Your task to perform on an android device: Open settings Image 0: 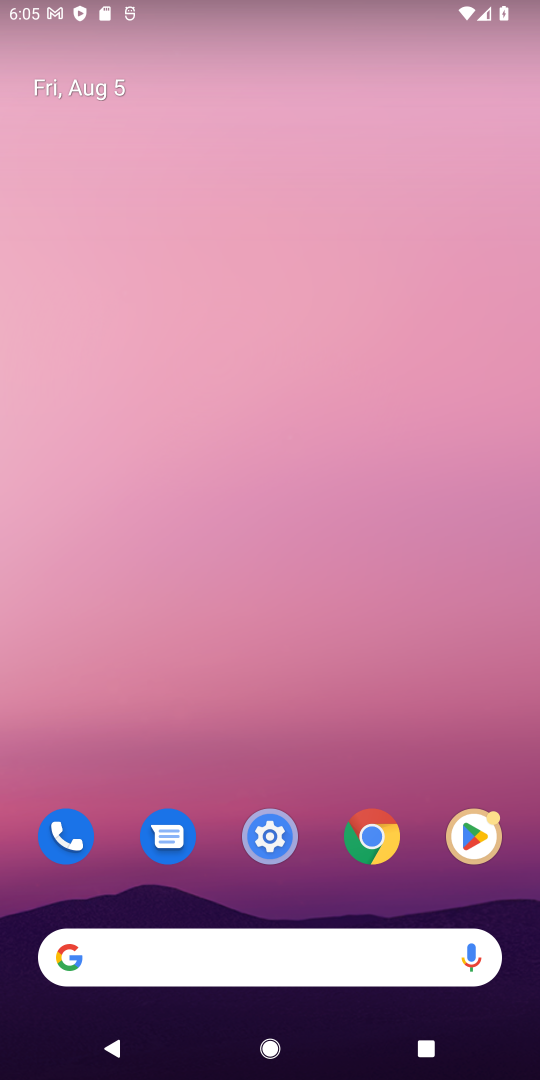
Step 0: drag from (312, 850) to (239, 182)
Your task to perform on an android device: Open settings Image 1: 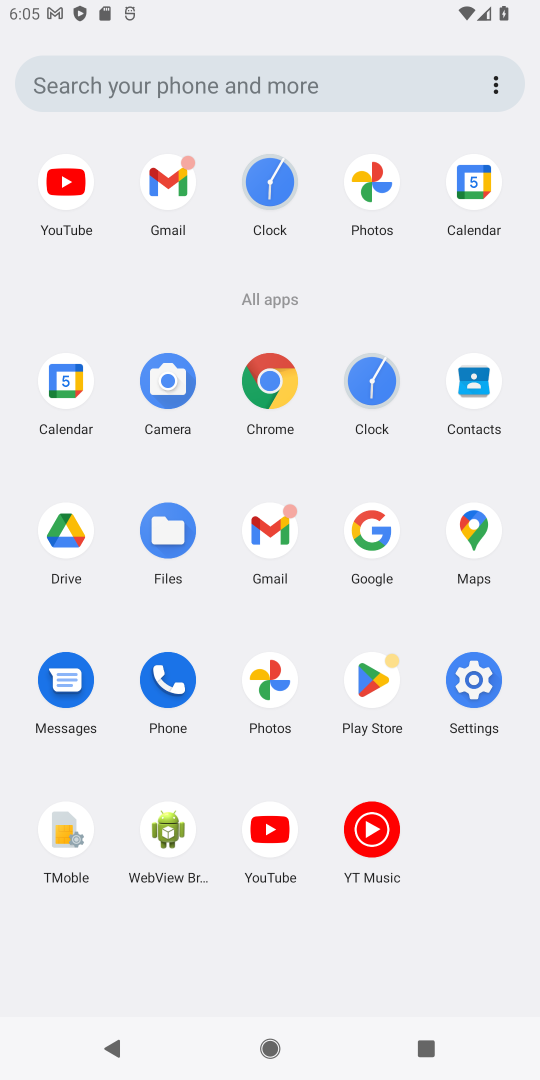
Step 1: drag from (238, 686) to (298, 59)
Your task to perform on an android device: Open settings Image 2: 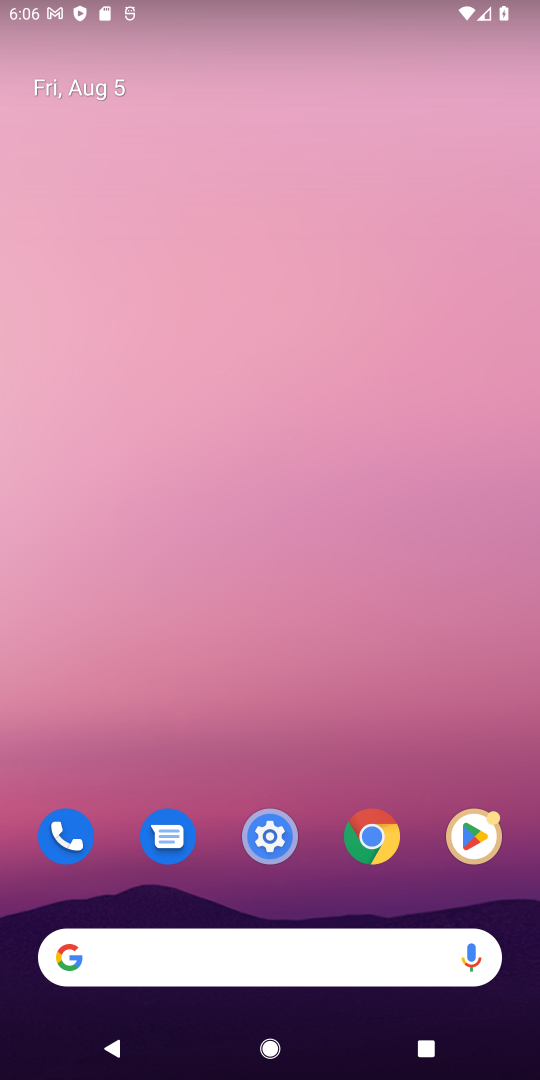
Step 2: drag from (241, 300) to (228, 351)
Your task to perform on an android device: Open settings Image 3: 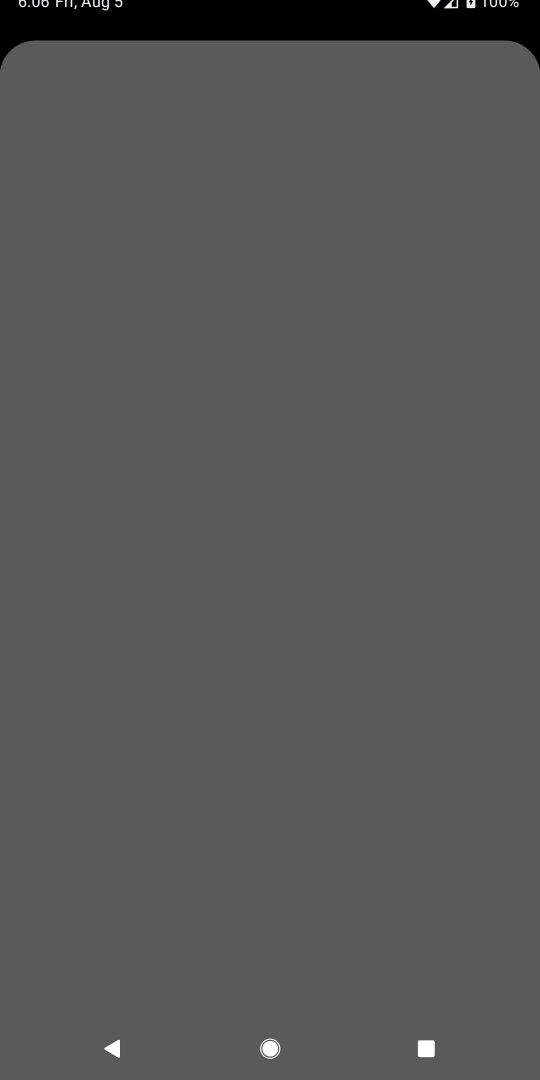
Step 3: drag from (250, 905) to (262, 313)
Your task to perform on an android device: Open settings Image 4: 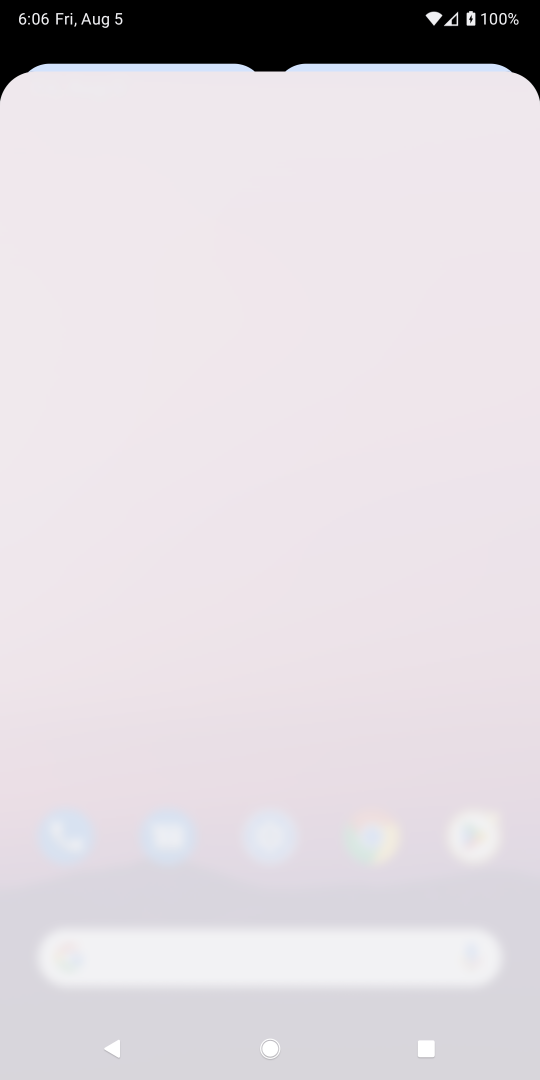
Step 4: drag from (309, 703) to (234, 151)
Your task to perform on an android device: Open settings Image 5: 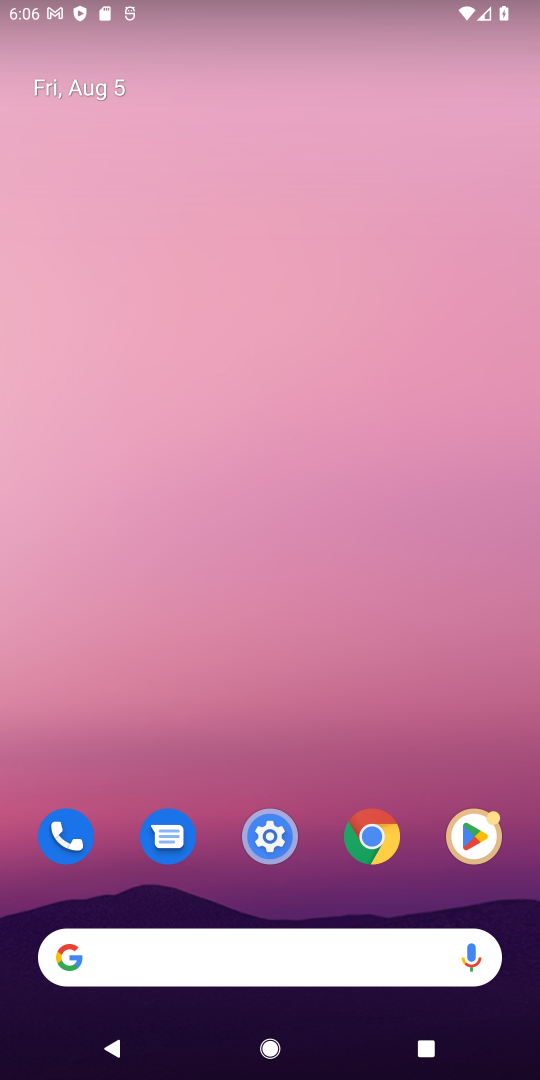
Step 5: drag from (305, 835) to (225, 100)
Your task to perform on an android device: Open settings Image 6: 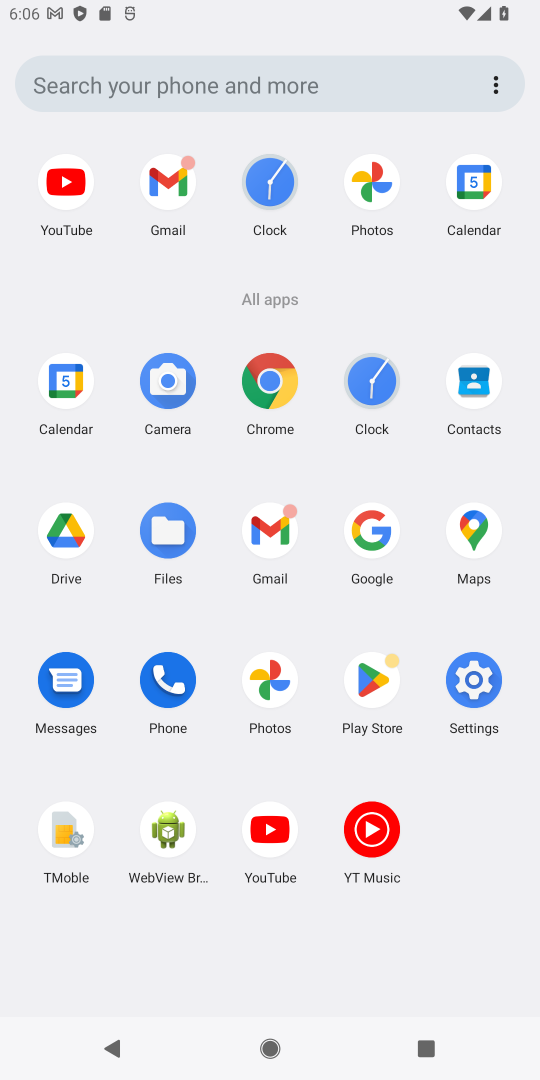
Step 6: click (483, 669)
Your task to perform on an android device: Open settings Image 7: 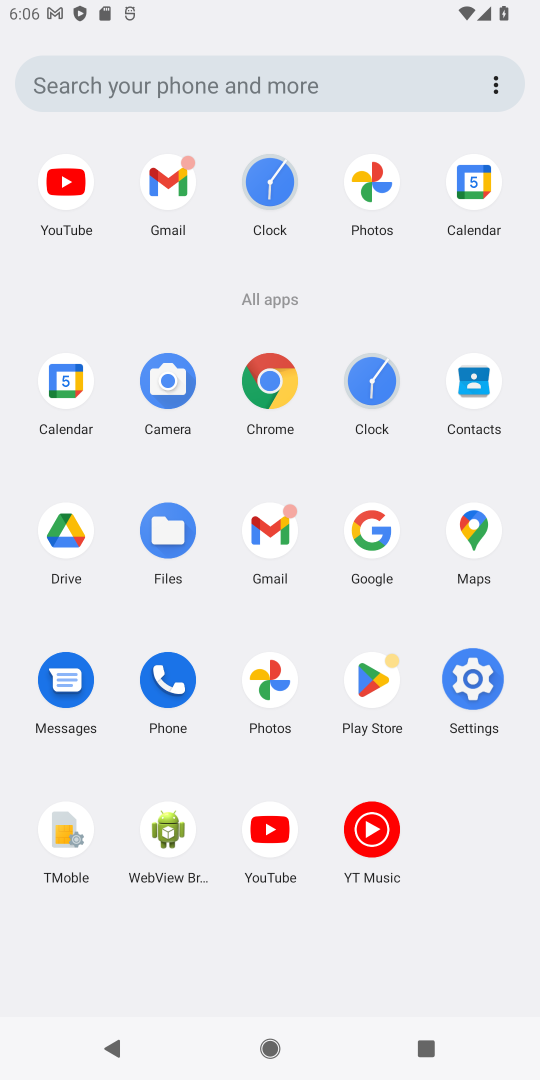
Step 7: click (481, 669)
Your task to perform on an android device: Open settings Image 8: 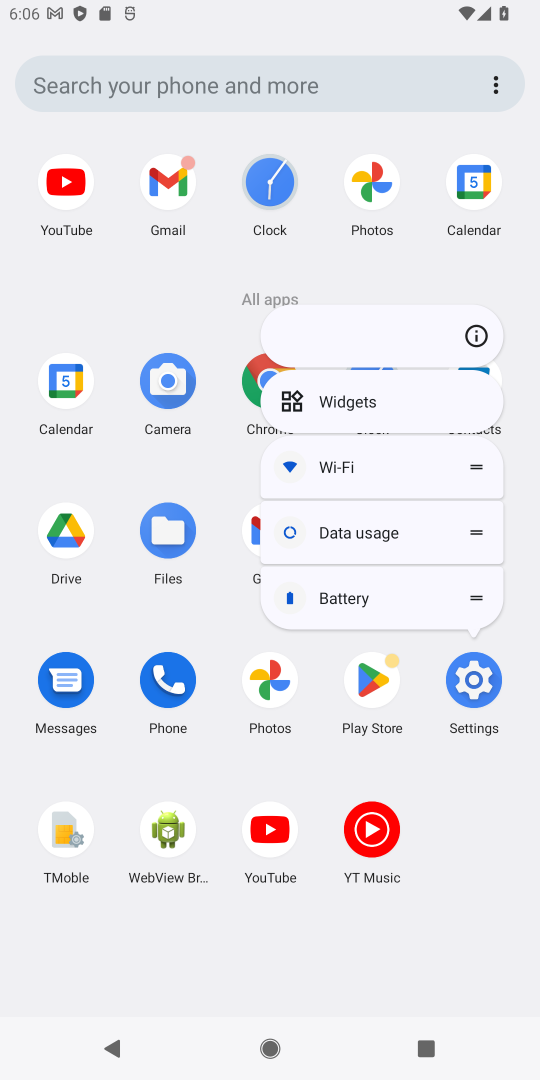
Step 8: click (474, 666)
Your task to perform on an android device: Open settings Image 9: 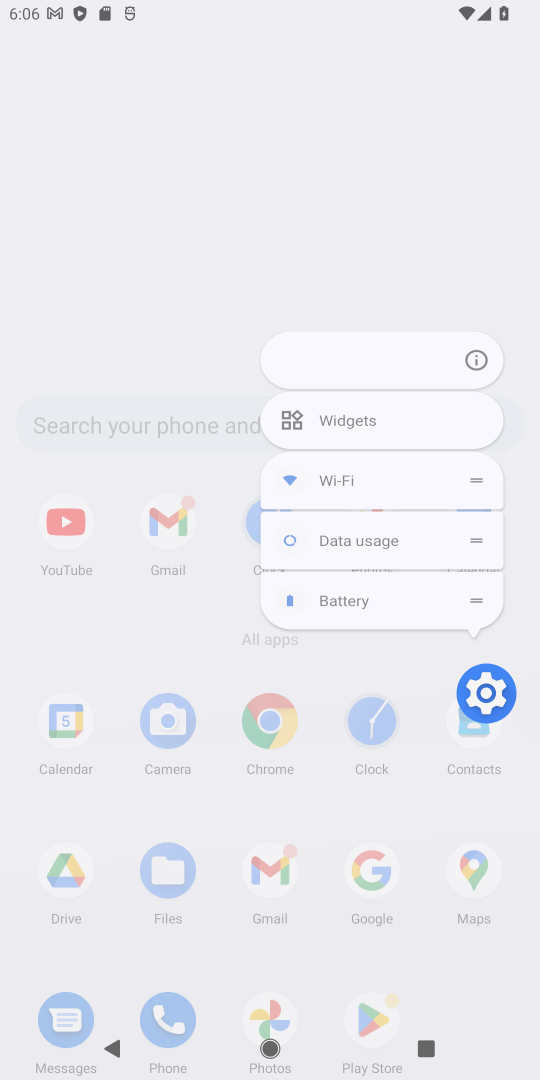
Step 9: click (468, 678)
Your task to perform on an android device: Open settings Image 10: 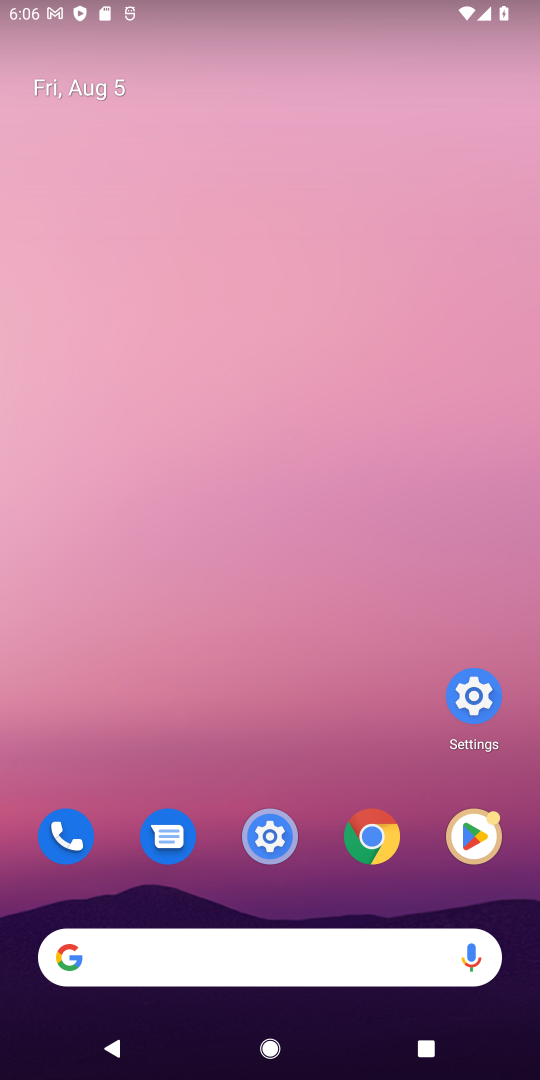
Step 10: drag from (302, 778) to (205, 362)
Your task to perform on an android device: Open settings Image 11: 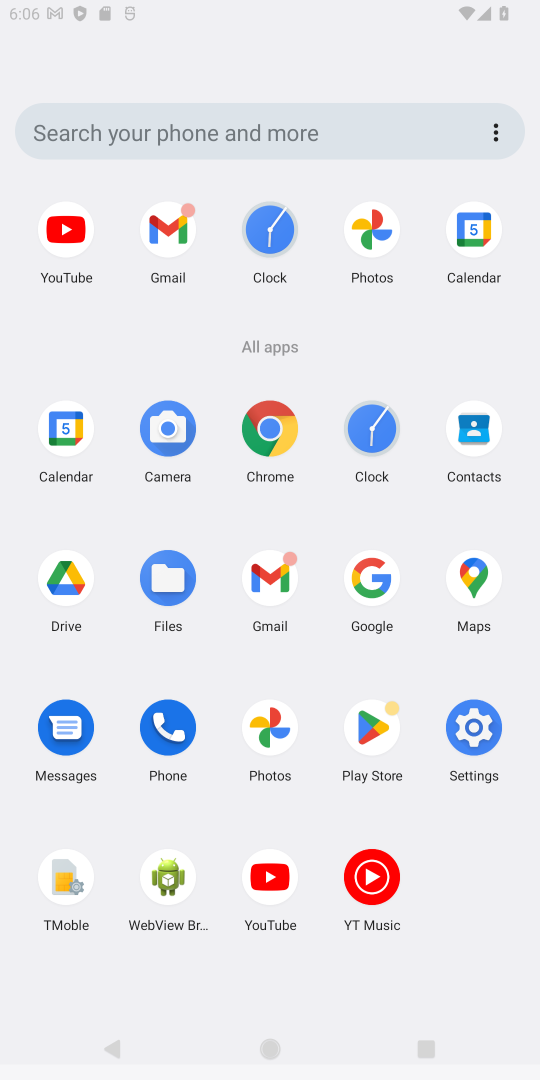
Step 11: drag from (321, 916) to (231, 247)
Your task to perform on an android device: Open settings Image 12: 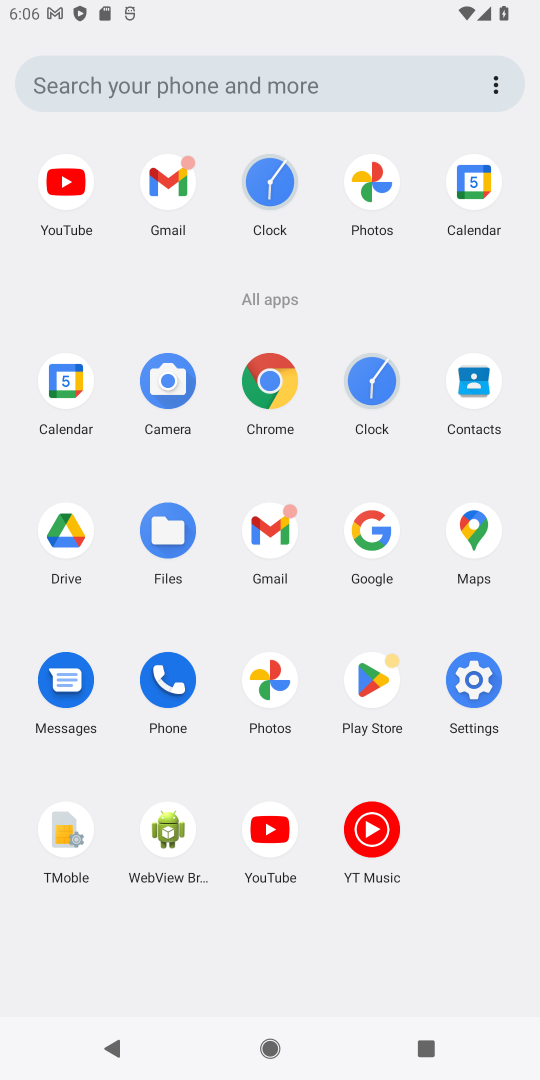
Step 12: click (370, 348)
Your task to perform on an android device: Open settings Image 13: 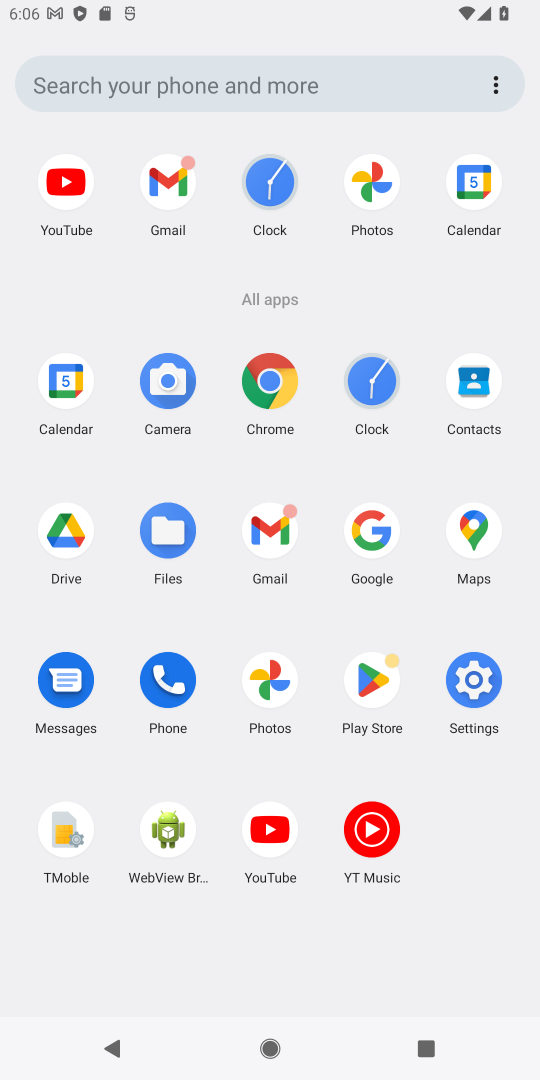
Step 13: drag from (330, 340) to (319, 257)
Your task to perform on an android device: Open settings Image 14: 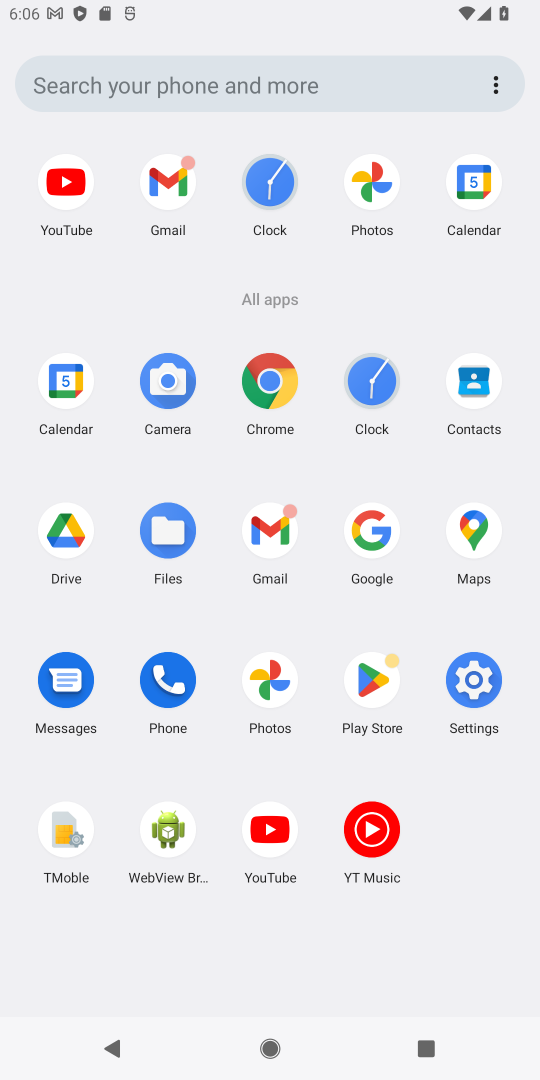
Step 14: drag from (311, 767) to (309, 262)
Your task to perform on an android device: Open settings Image 15: 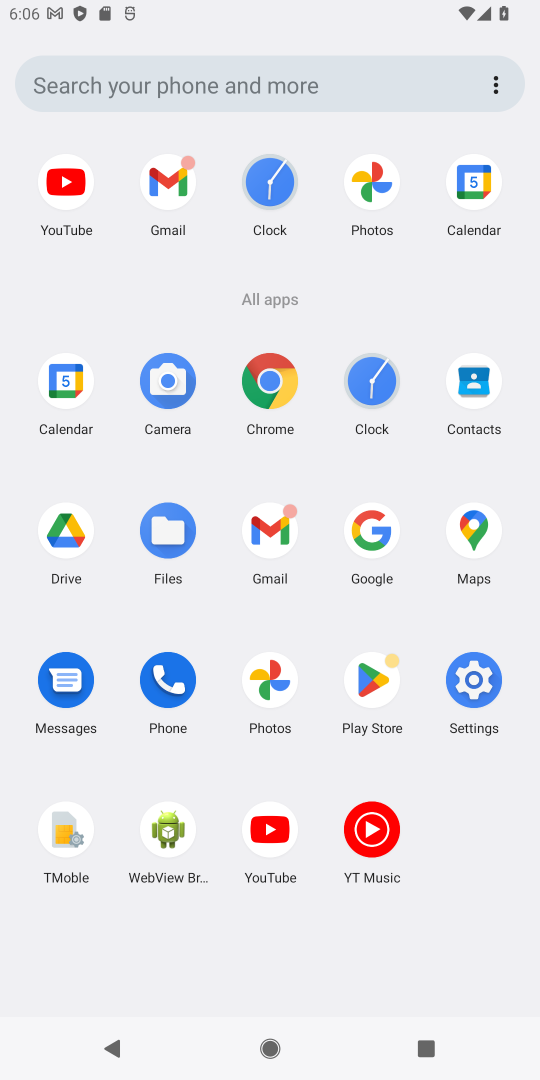
Step 15: click (462, 692)
Your task to perform on an android device: Open settings Image 16: 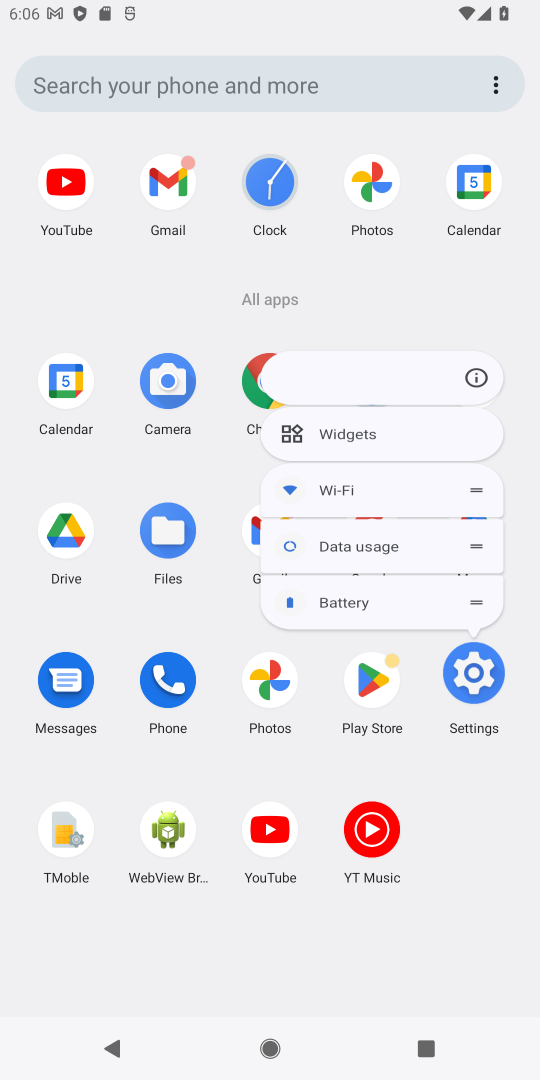
Step 16: click (462, 685)
Your task to perform on an android device: Open settings Image 17: 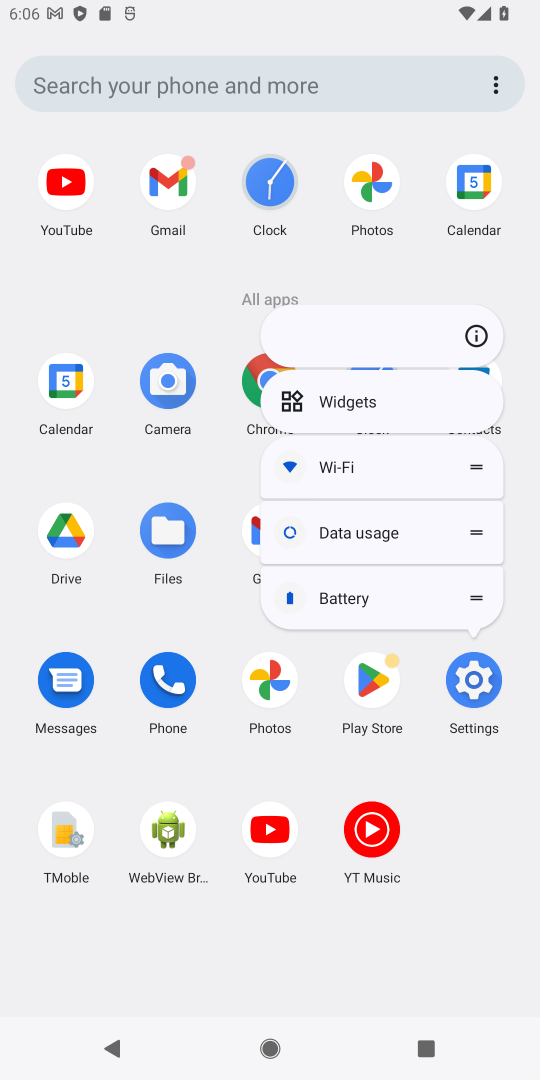
Step 17: click (462, 685)
Your task to perform on an android device: Open settings Image 18: 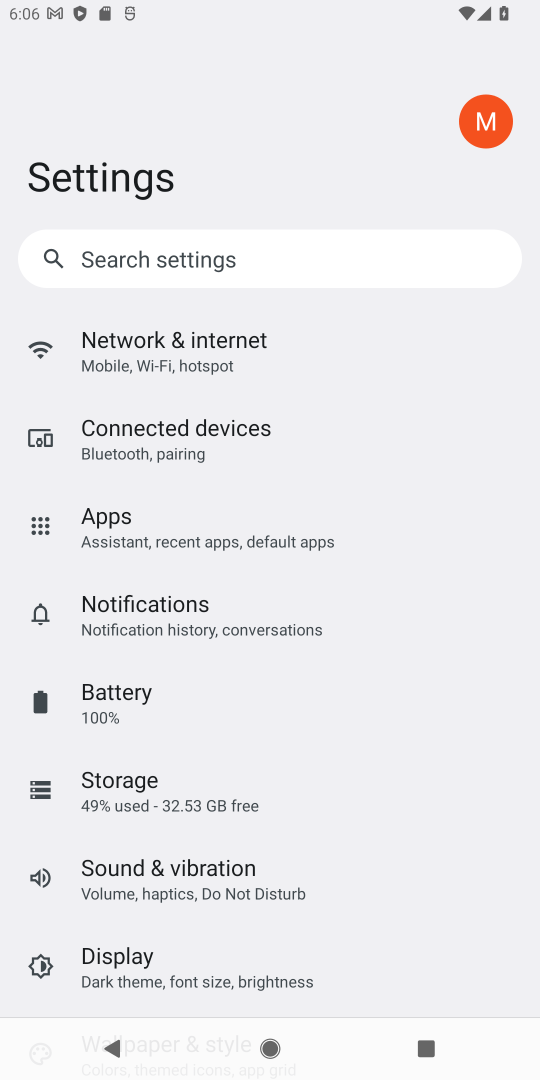
Step 18: click (467, 677)
Your task to perform on an android device: Open settings Image 19: 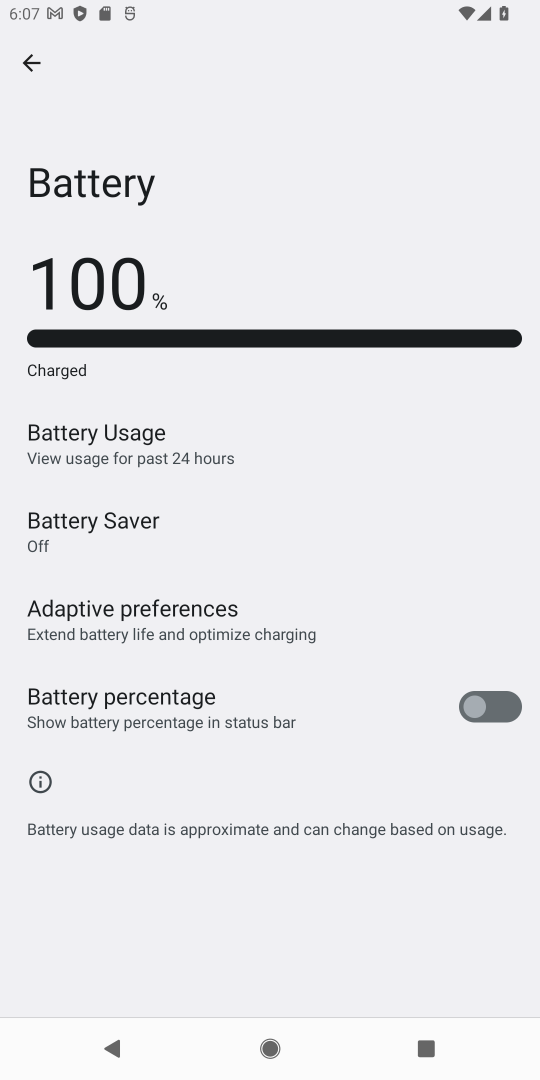
Step 19: click (469, 679)
Your task to perform on an android device: Open settings Image 20: 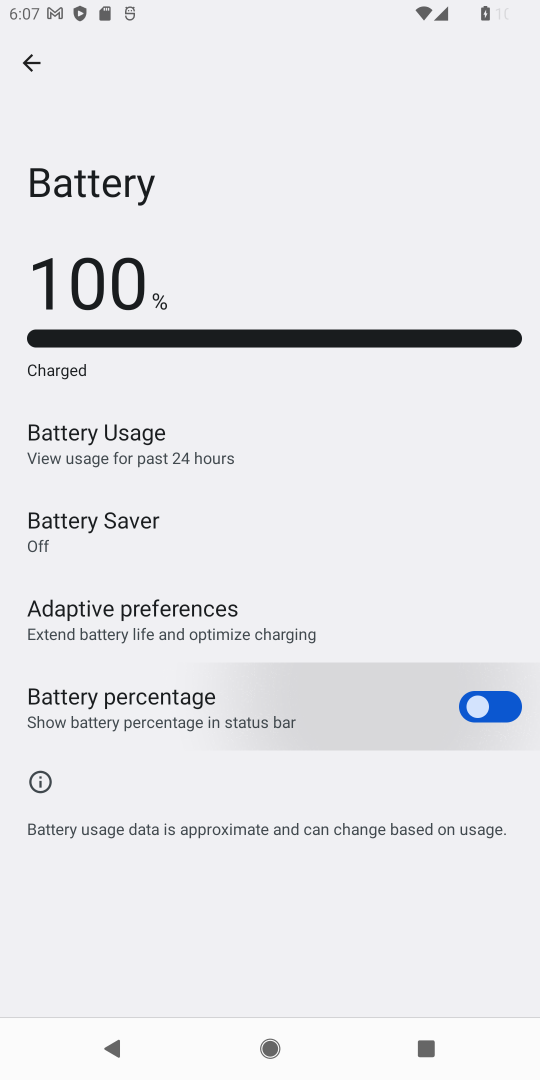
Step 20: click (460, 677)
Your task to perform on an android device: Open settings Image 21: 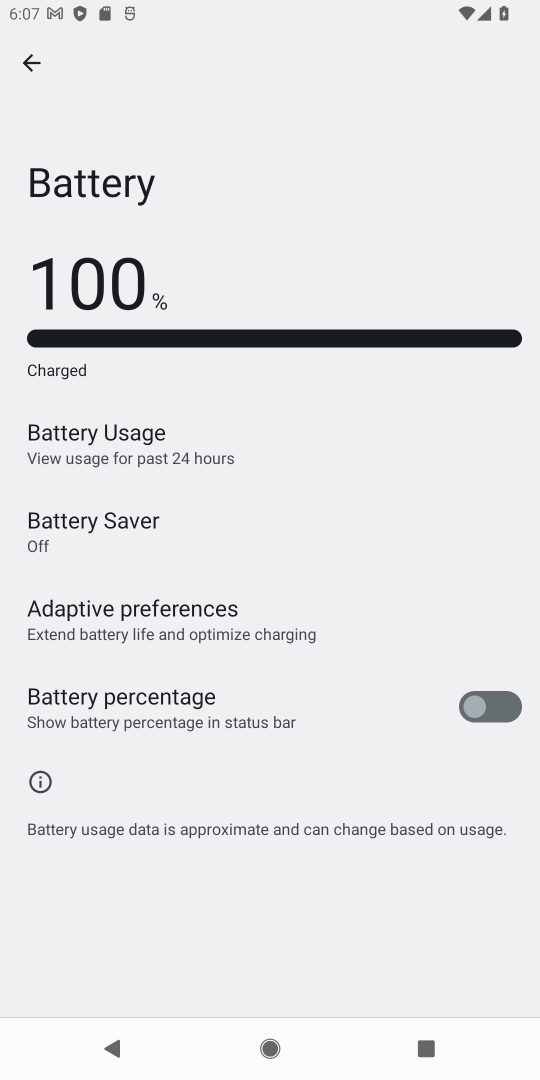
Step 21: click (177, 211)
Your task to perform on an android device: Open settings Image 22: 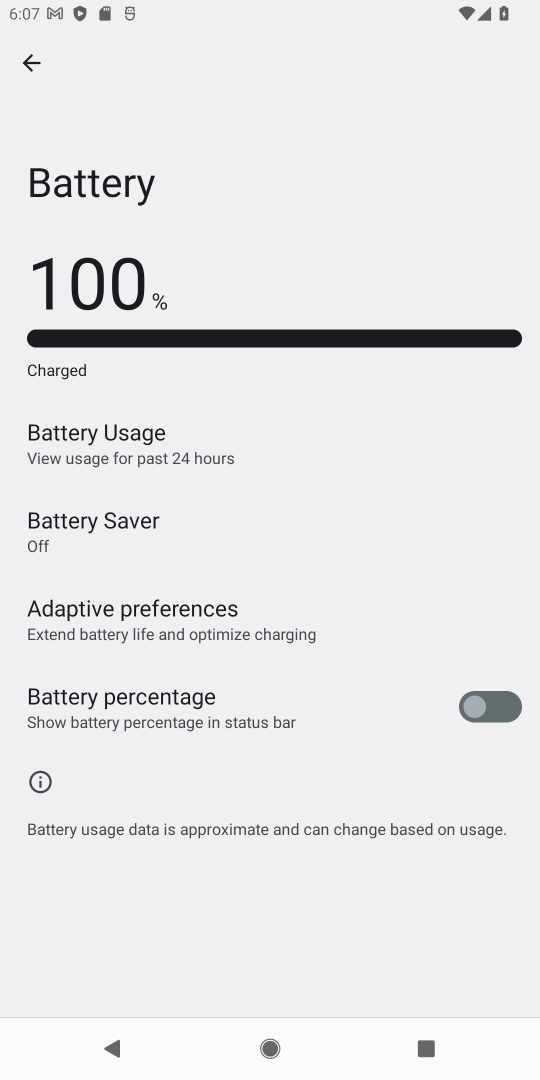
Step 22: drag from (245, 584) to (189, 199)
Your task to perform on an android device: Open settings Image 23: 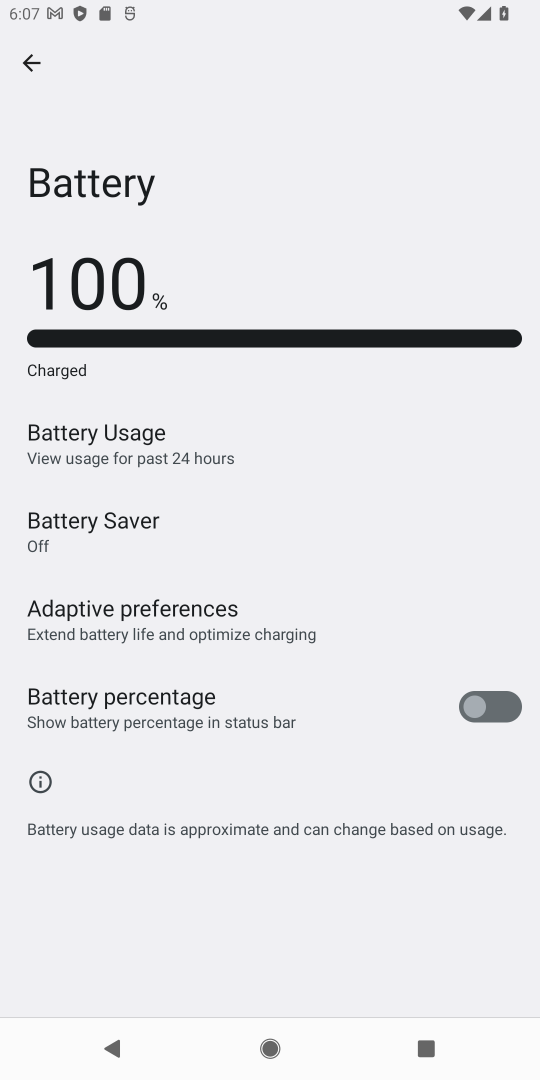
Step 23: click (168, 124)
Your task to perform on an android device: Open settings Image 24: 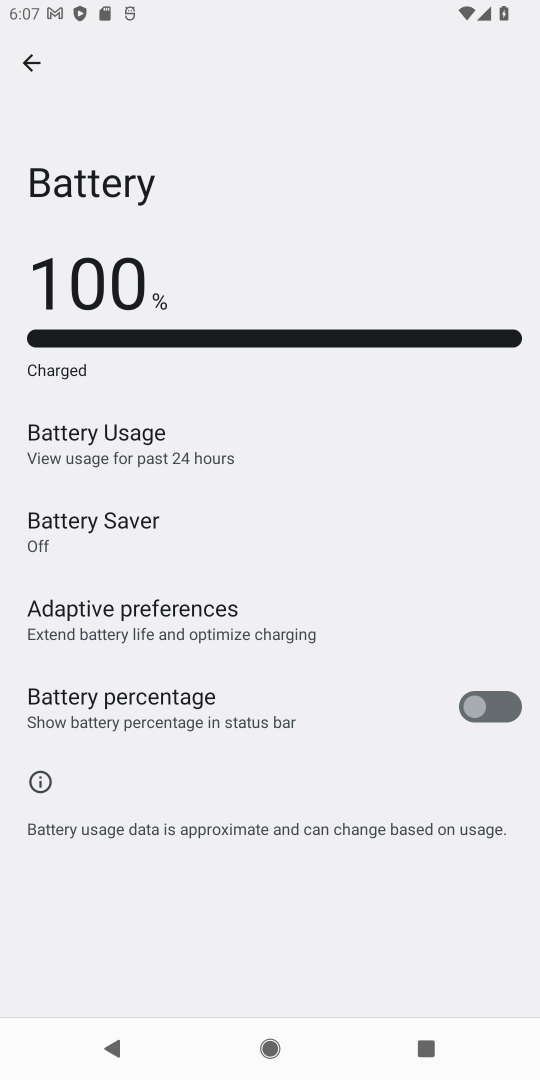
Step 24: click (16, 67)
Your task to perform on an android device: Open settings Image 25: 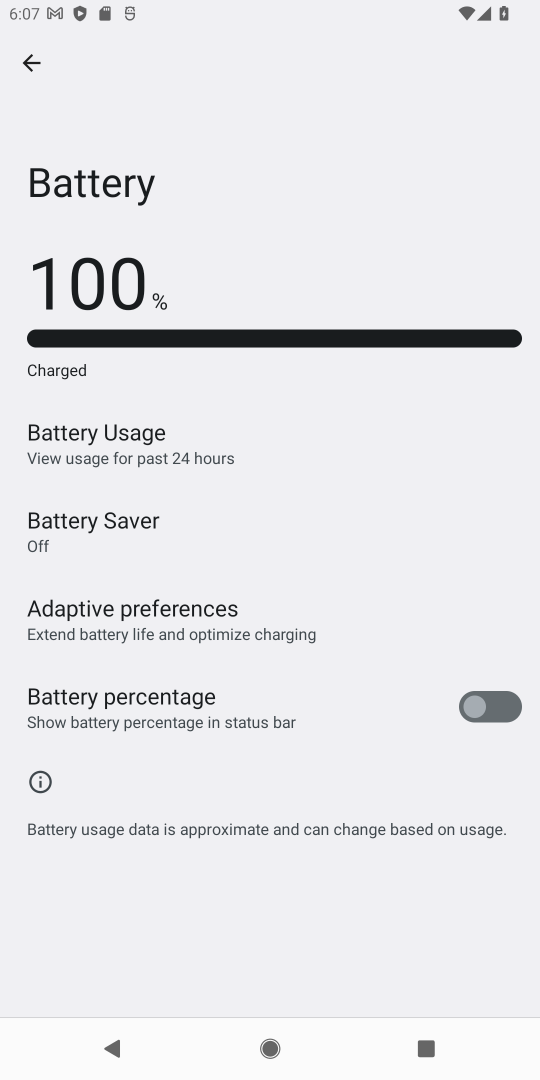
Step 25: click (25, 57)
Your task to perform on an android device: Open settings Image 26: 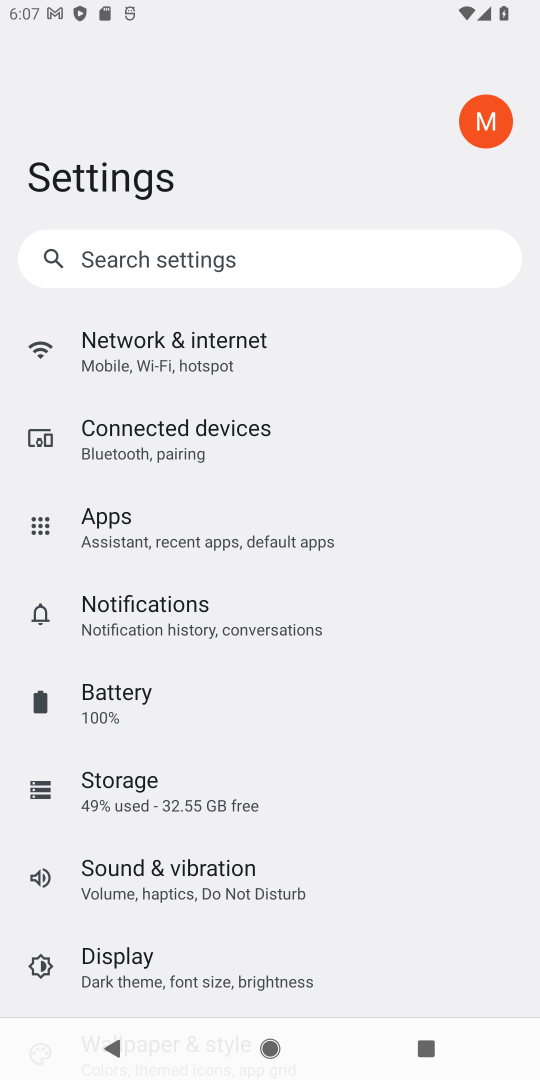
Step 26: click (30, 56)
Your task to perform on an android device: Open settings Image 27: 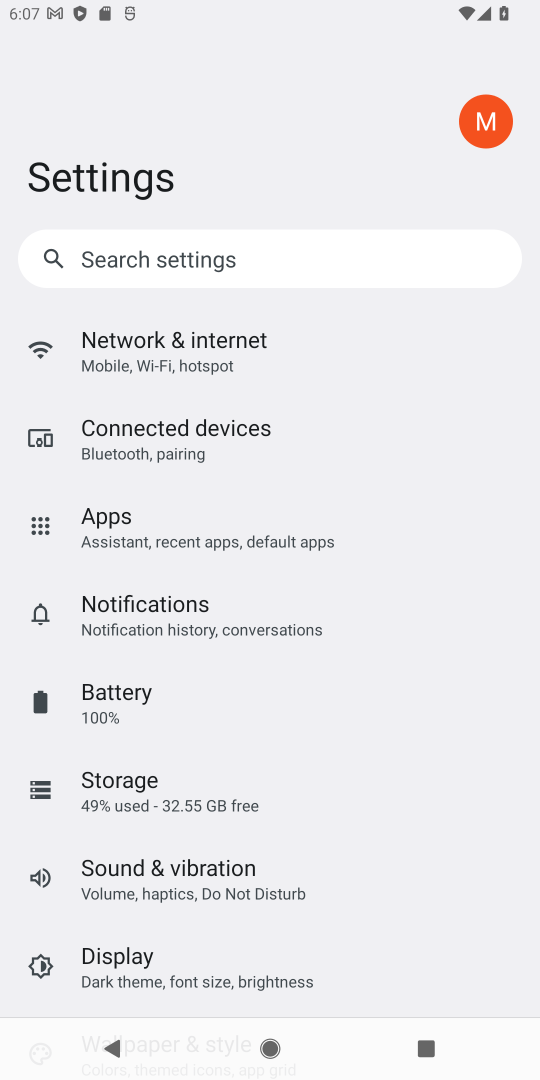
Step 27: click (24, 59)
Your task to perform on an android device: Open settings Image 28: 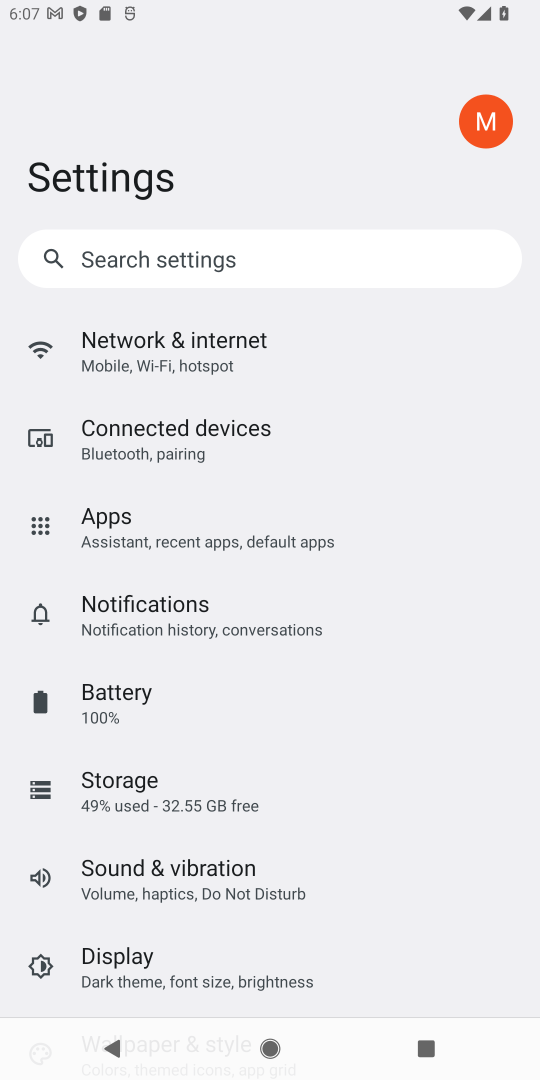
Step 28: click (24, 60)
Your task to perform on an android device: Open settings Image 29: 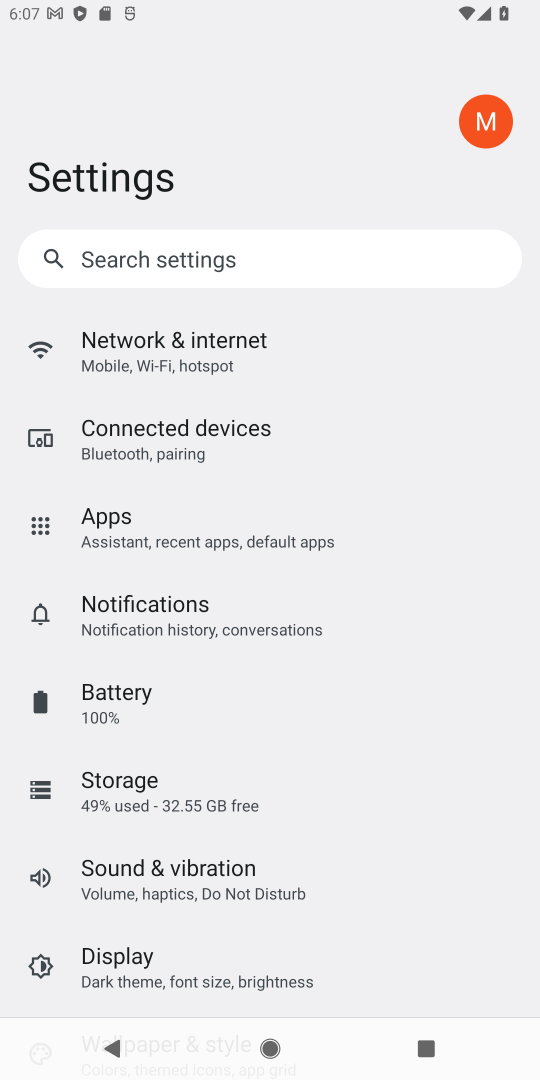
Step 29: task complete